Your task to perform on an android device: toggle airplane mode Image 0: 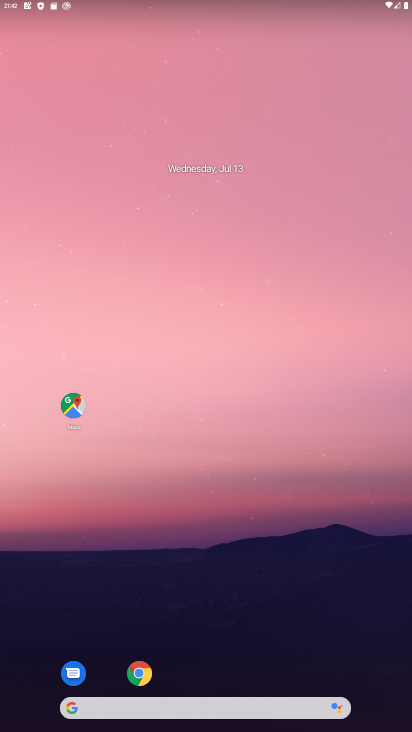
Step 0: drag from (214, 608) to (198, 230)
Your task to perform on an android device: toggle airplane mode Image 1: 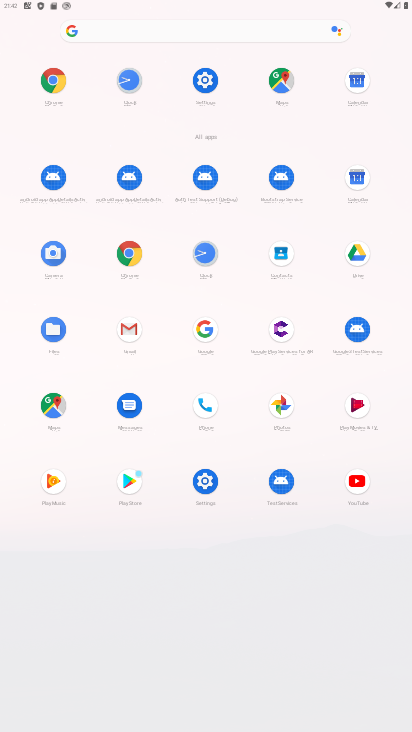
Step 1: click (220, 80)
Your task to perform on an android device: toggle airplane mode Image 2: 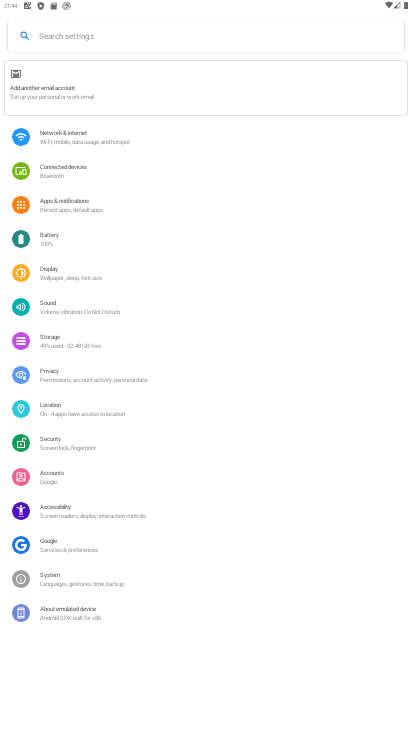
Step 2: click (72, 142)
Your task to perform on an android device: toggle airplane mode Image 3: 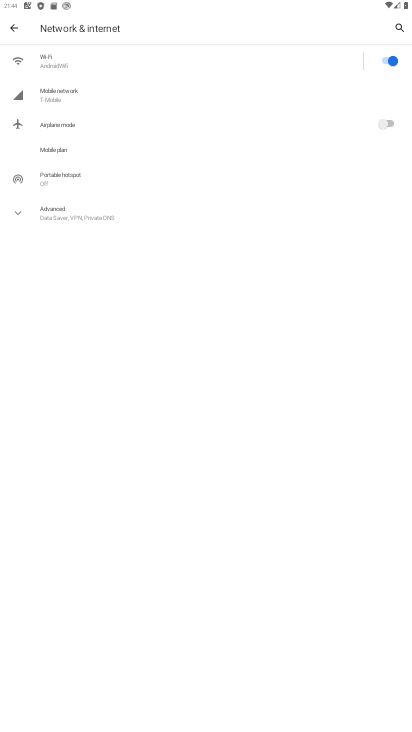
Step 3: click (388, 117)
Your task to perform on an android device: toggle airplane mode Image 4: 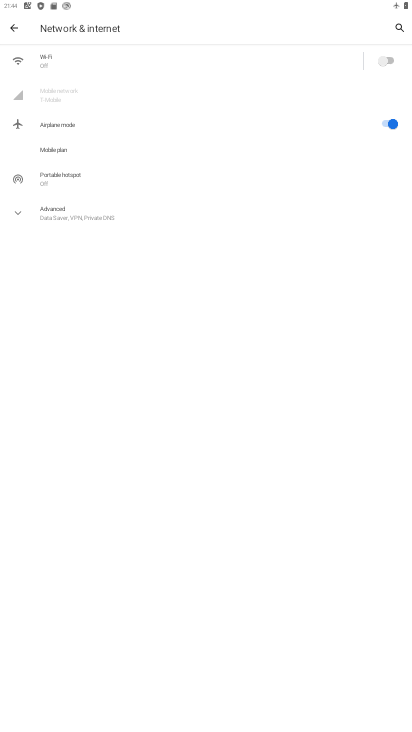
Step 4: task complete